Your task to perform on an android device: see creations saved in the google photos Image 0: 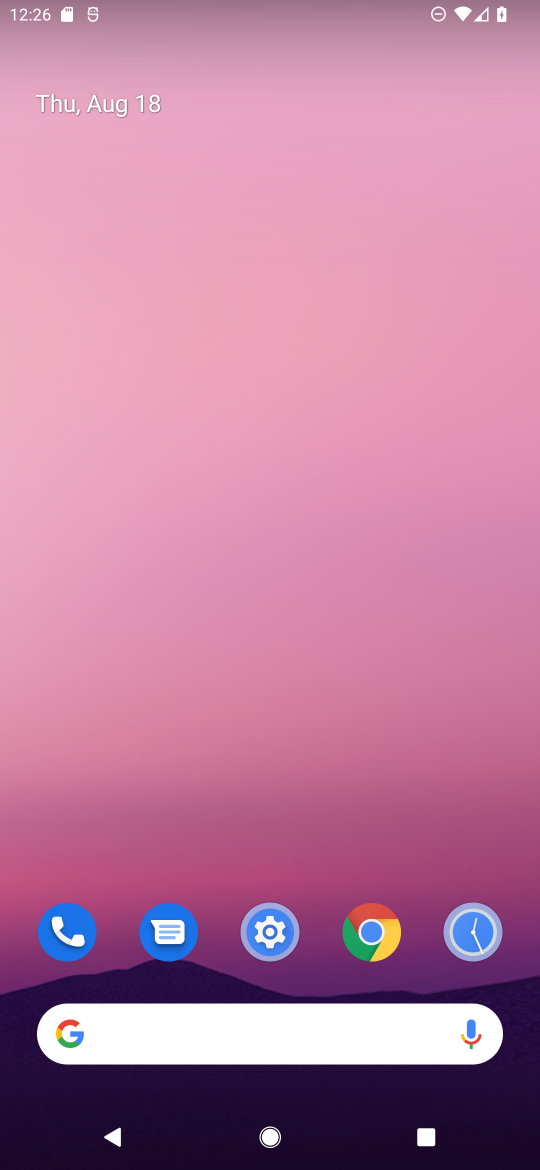
Step 0: drag from (313, 841) to (248, 244)
Your task to perform on an android device: see creations saved in the google photos Image 1: 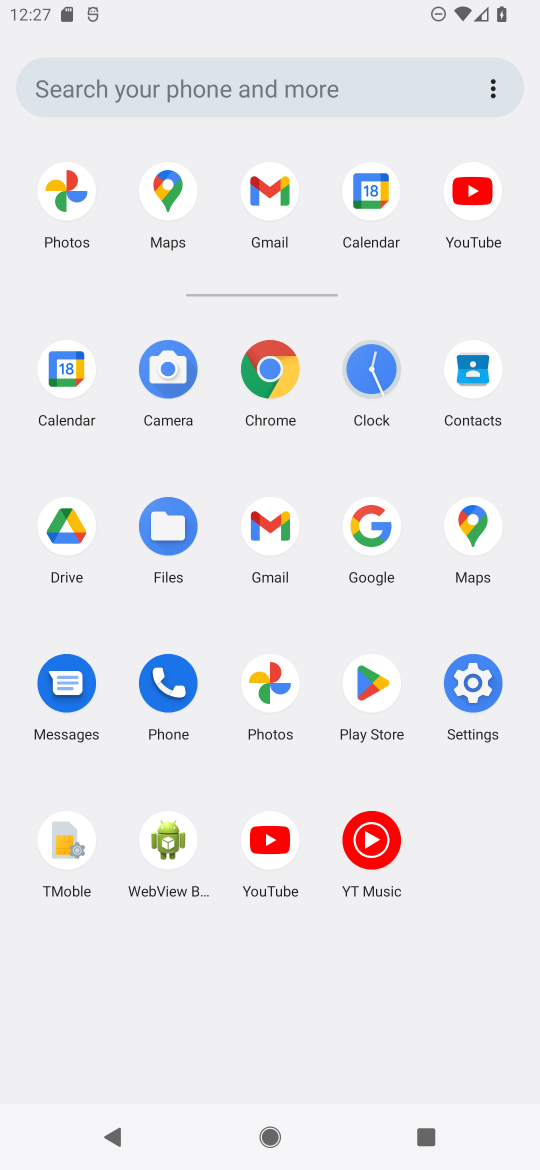
Step 1: click (71, 189)
Your task to perform on an android device: see creations saved in the google photos Image 2: 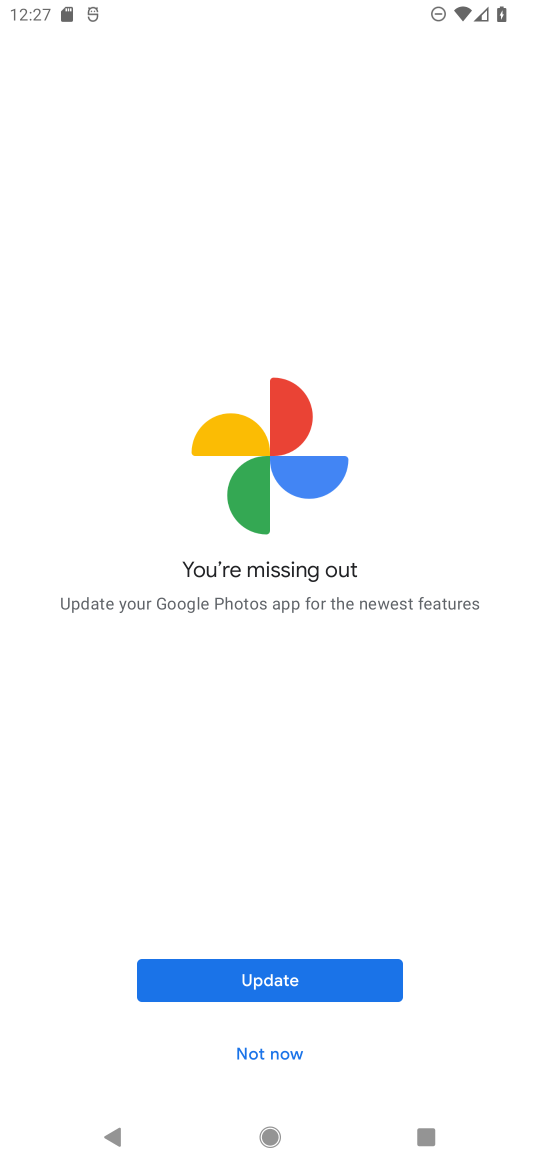
Step 2: click (258, 975)
Your task to perform on an android device: see creations saved in the google photos Image 3: 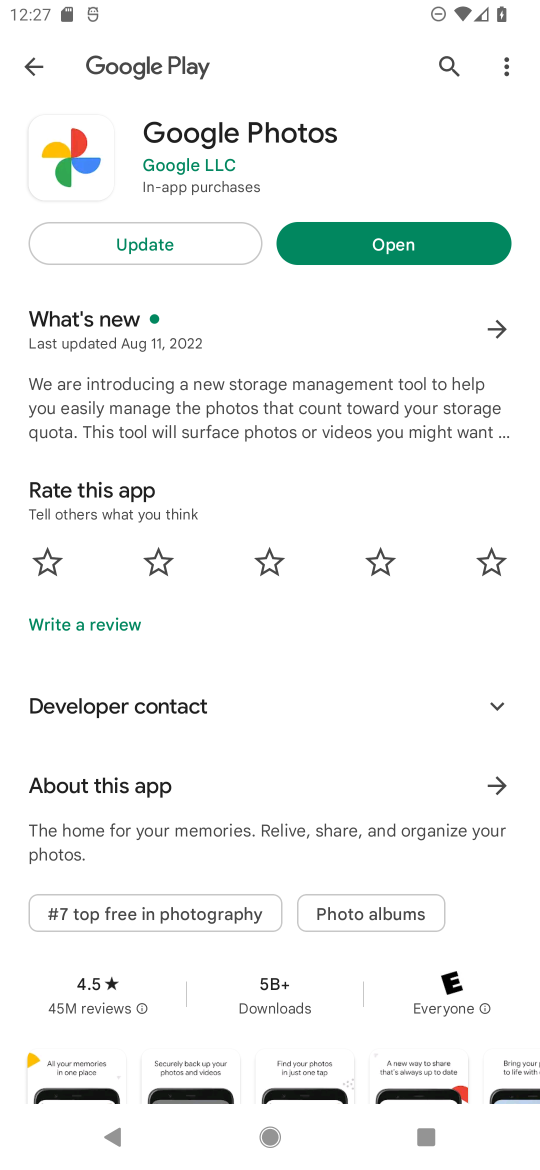
Step 3: click (150, 238)
Your task to perform on an android device: see creations saved in the google photos Image 4: 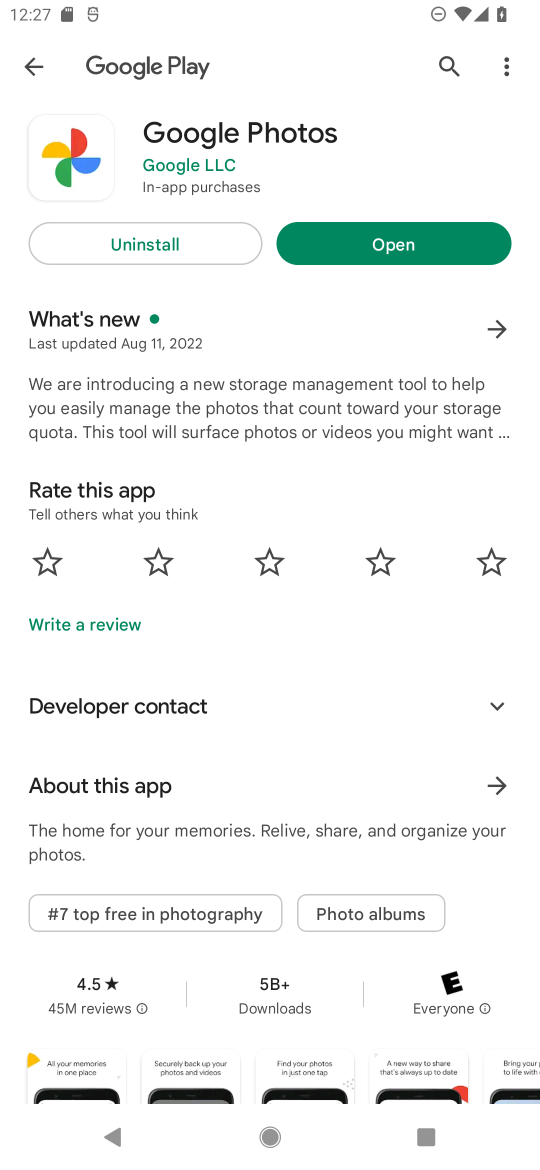
Step 4: click (341, 242)
Your task to perform on an android device: see creations saved in the google photos Image 5: 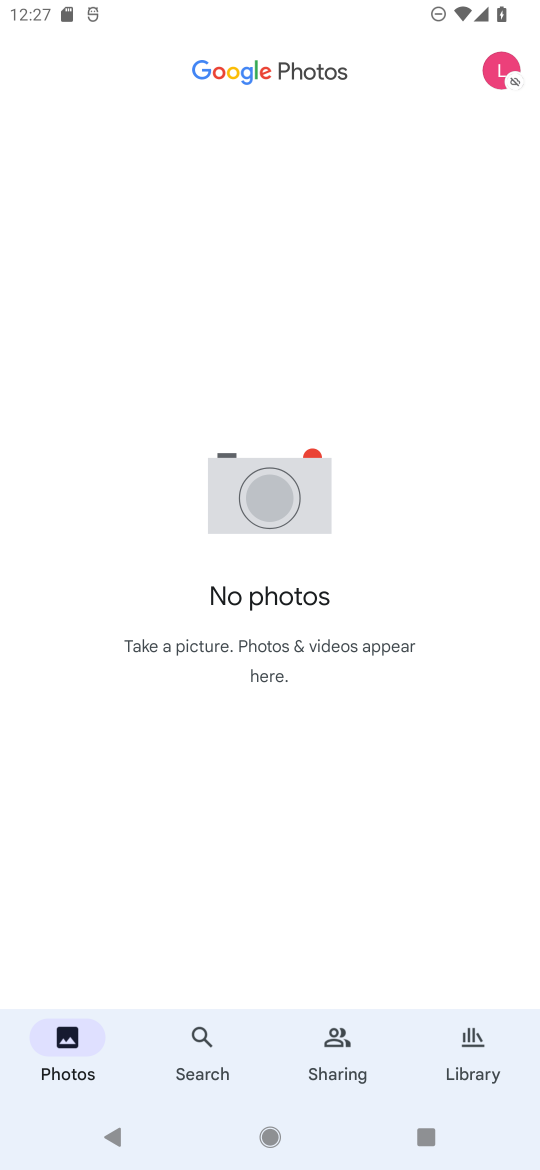
Step 5: click (194, 1037)
Your task to perform on an android device: see creations saved in the google photos Image 6: 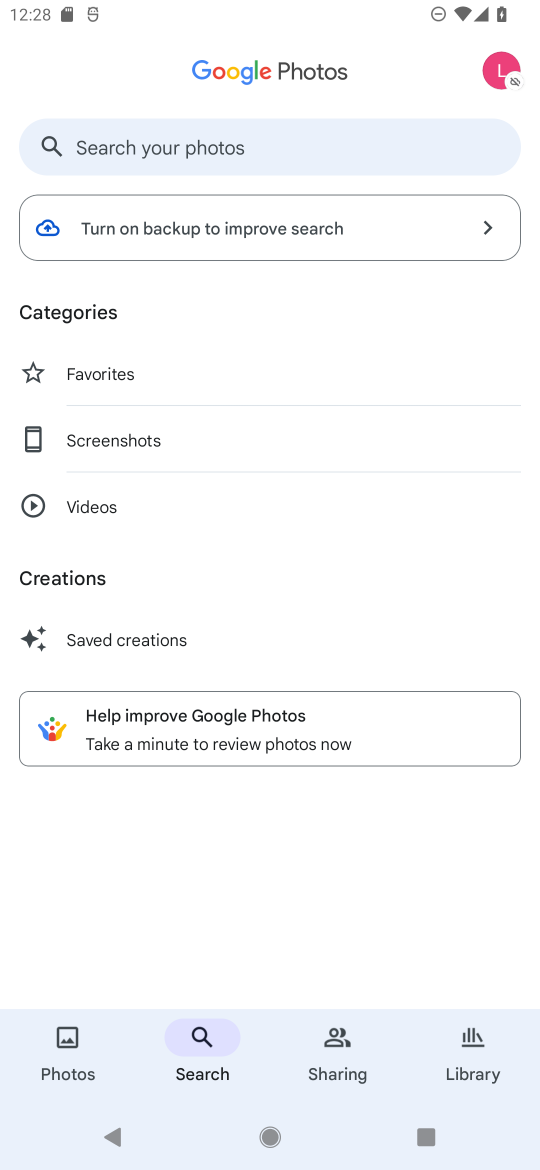
Step 6: click (68, 573)
Your task to perform on an android device: see creations saved in the google photos Image 7: 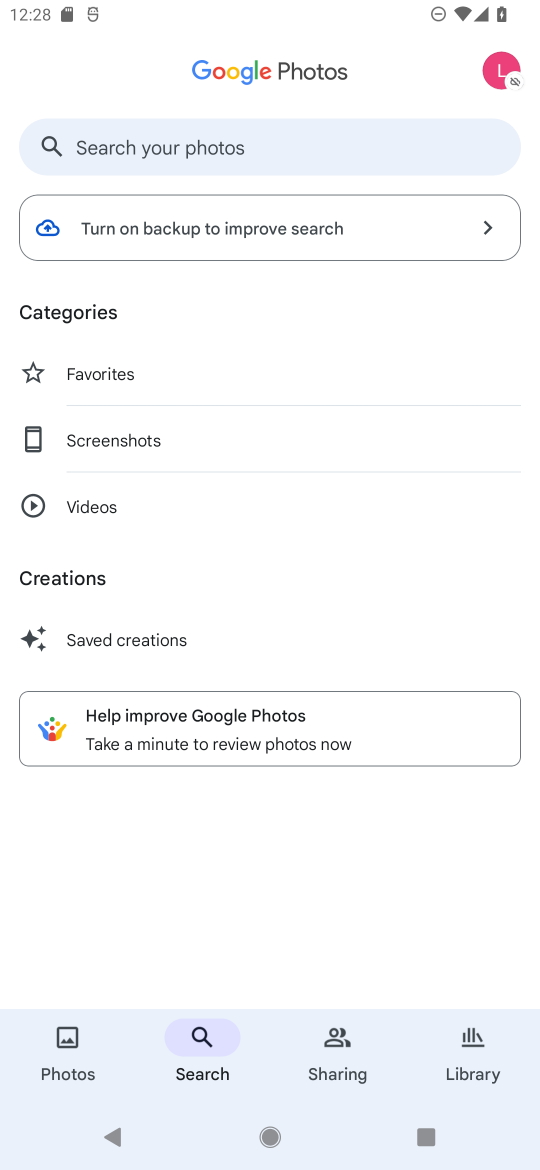
Step 7: click (94, 640)
Your task to perform on an android device: see creations saved in the google photos Image 8: 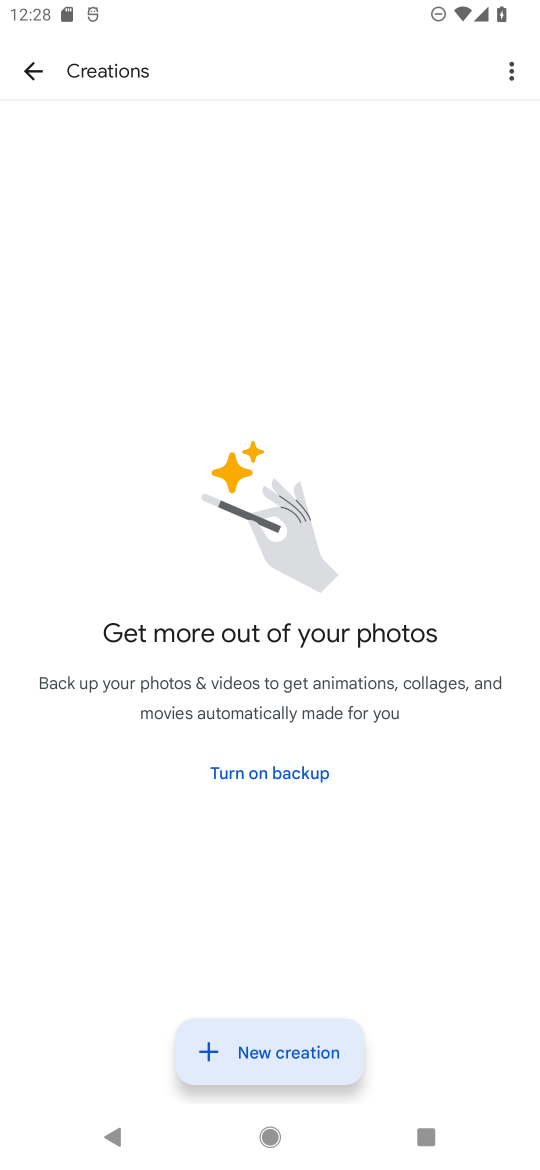
Step 8: task complete